Your task to perform on an android device: see creations saved in the google photos Image 0: 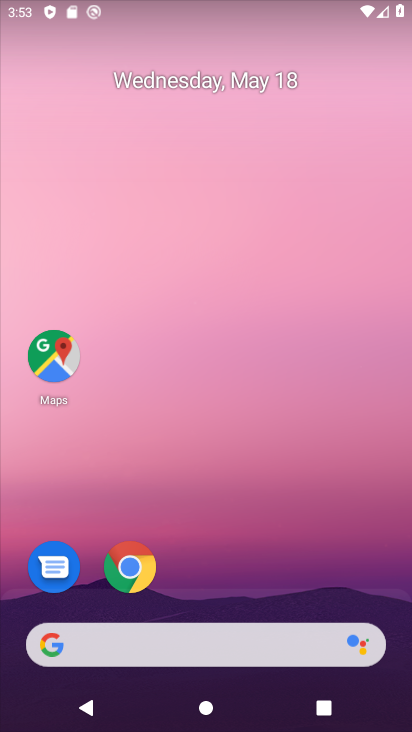
Step 0: drag from (336, 602) to (358, 70)
Your task to perform on an android device: see creations saved in the google photos Image 1: 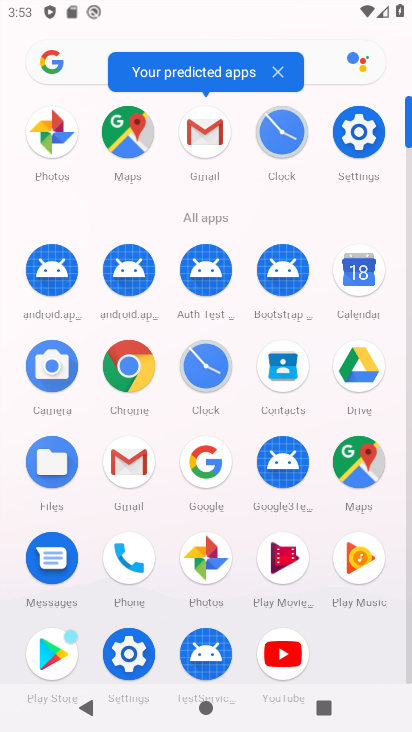
Step 1: click (212, 554)
Your task to perform on an android device: see creations saved in the google photos Image 2: 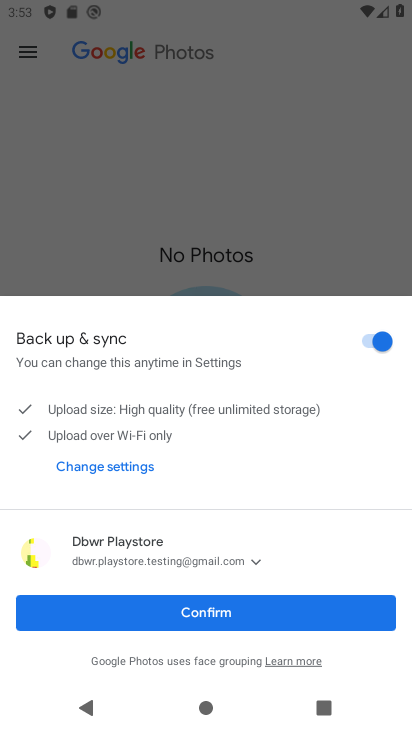
Step 2: click (299, 610)
Your task to perform on an android device: see creations saved in the google photos Image 3: 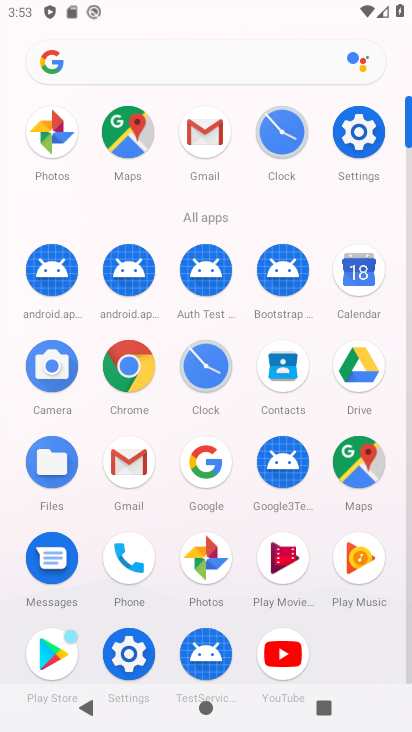
Step 3: click (211, 546)
Your task to perform on an android device: see creations saved in the google photos Image 4: 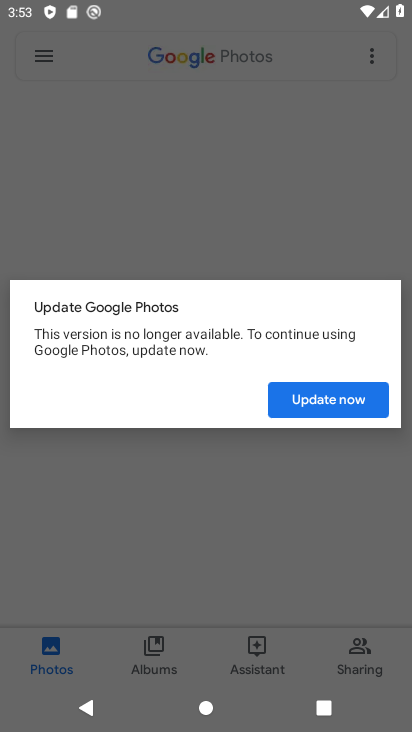
Step 4: click (332, 394)
Your task to perform on an android device: see creations saved in the google photos Image 5: 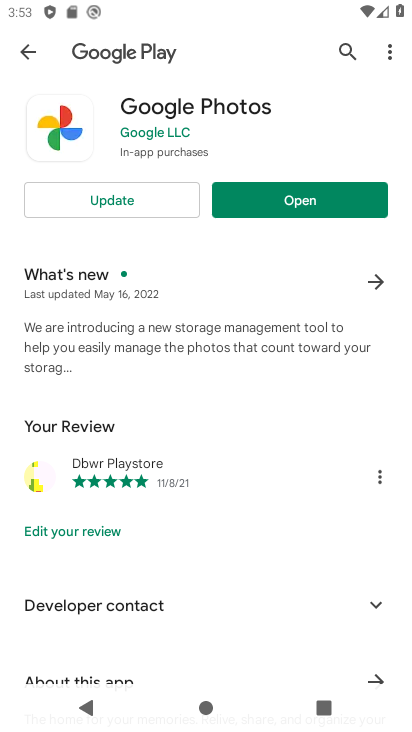
Step 5: click (287, 200)
Your task to perform on an android device: see creations saved in the google photos Image 6: 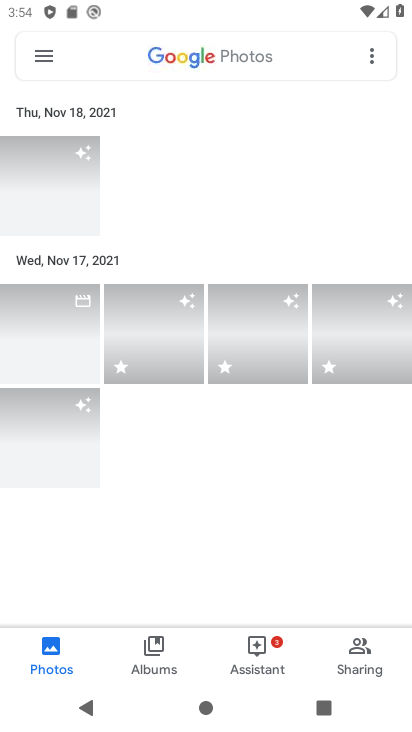
Step 6: click (186, 51)
Your task to perform on an android device: see creations saved in the google photos Image 7: 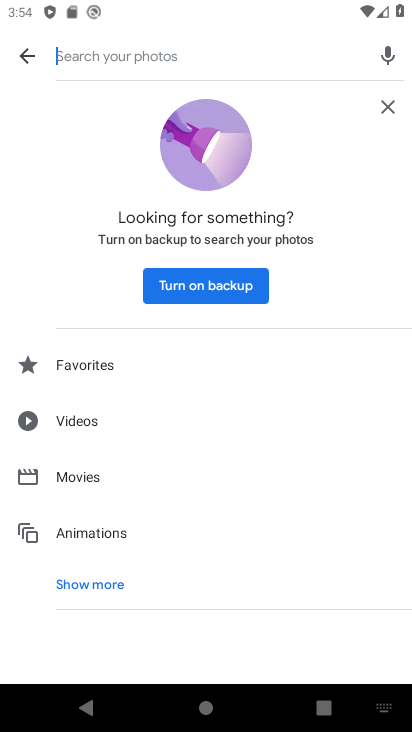
Step 7: click (84, 570)
Your task to perform on an android device: see creations saved in the google photos Image 8: 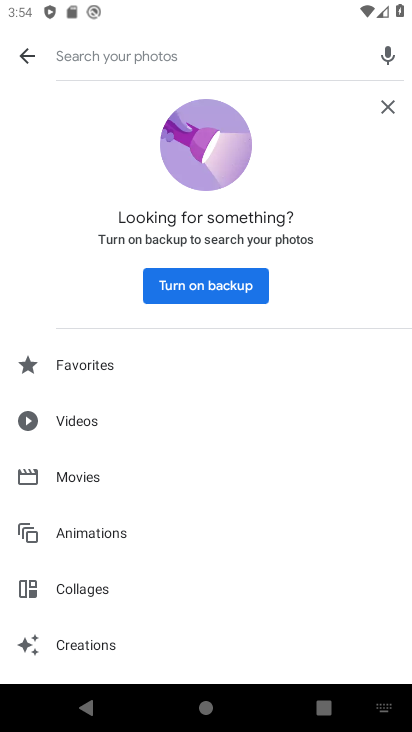
Step 8: click (92, 641)
Your task to perform on an android device: see creations saved in the google photos Image 9: 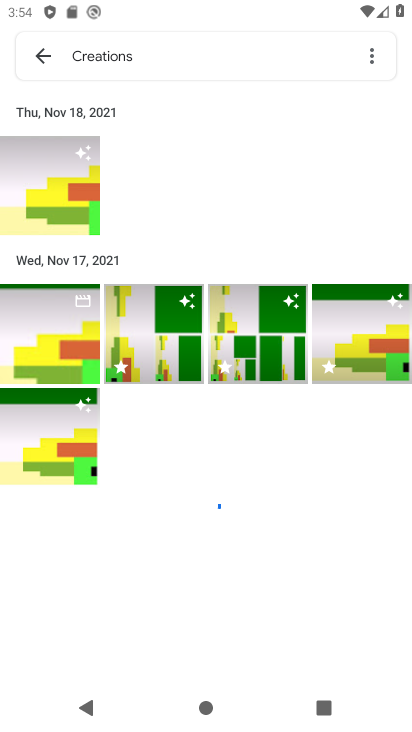
Step 9: task complete